Your task to perform on an android device: change keyboard looks Image 0: 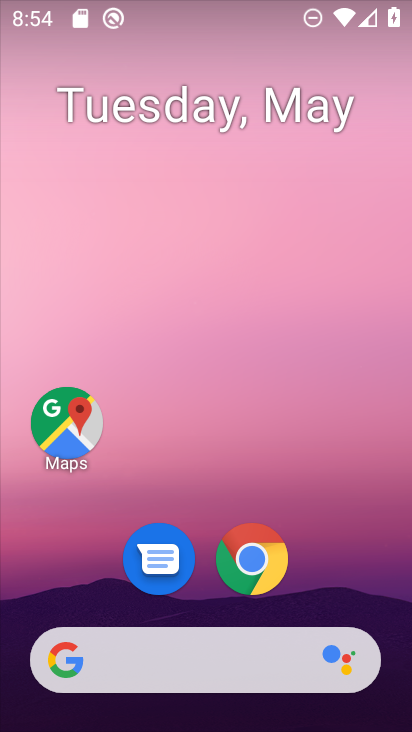
Step 0: drag from (224, 534) to (260, 194)
Your task to perform on an android device: change keyboard looks Image 1: 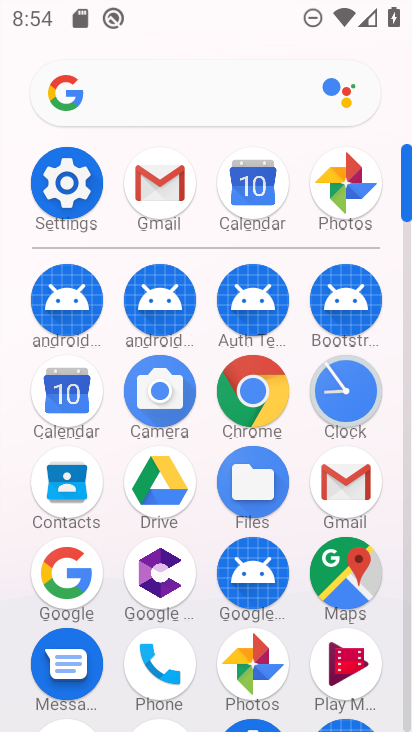
Step 1: click (60, 178)
Your task to perform on an android device: change keyboard looks Image 2: 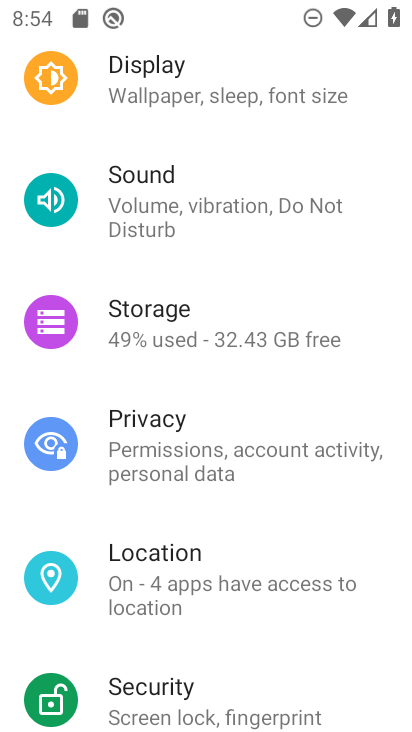
Step 2: drag from (224, 657) to (370, 136)
Your task to perform on an android device: change keyboard looks Image 3: 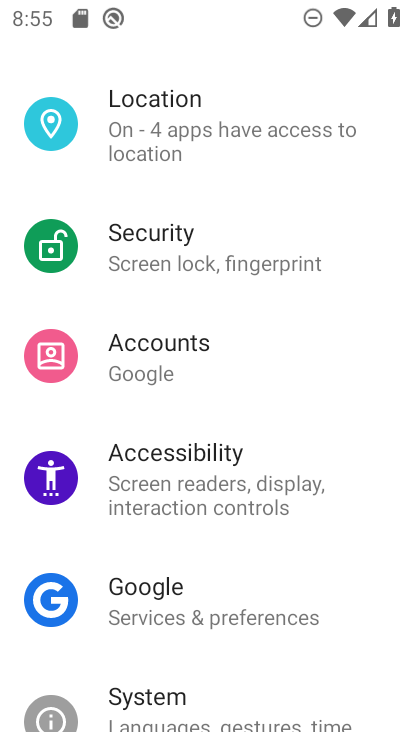
Step 3: click (182, 710)
Your task to perform on an android device: change keyboard looks Image 4: 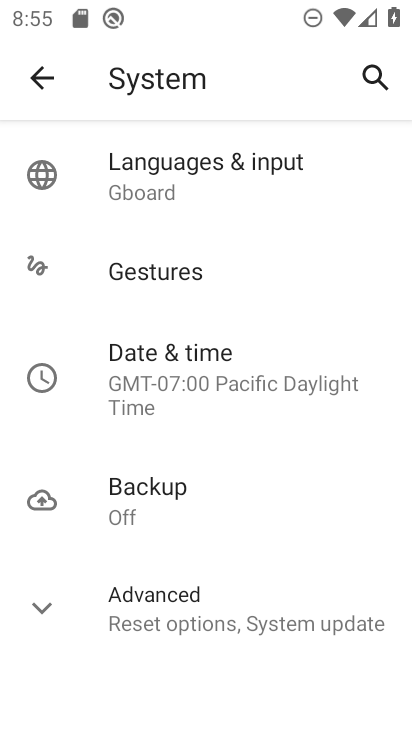
Step 4: click (188, 179)
Your task to perform on an android device: change keyboard looks Image 5: 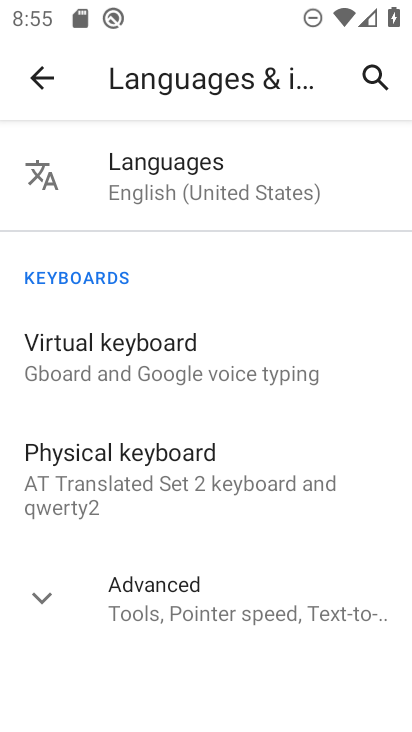
Step 5: click (183, 345)
Your task to perform on an android device: change keyboard looks Image 6: 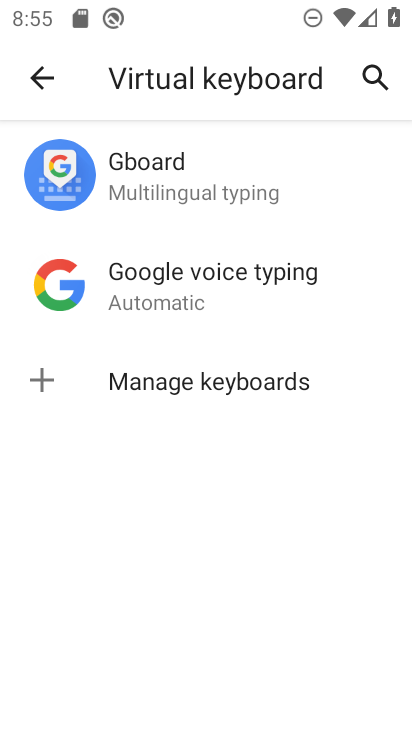
Step 6: click (179, 174)
Your task to perform on an android device: change keyboard looks Image 7: 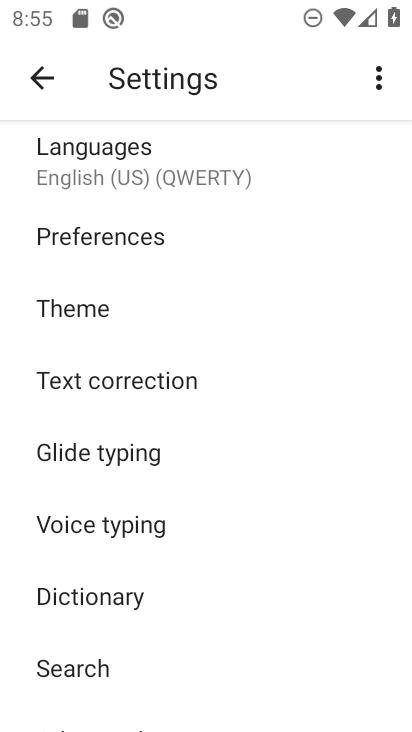
Step 7: click (96, 299)
Your task to perform on an android device: change keyboard looks Image 8: 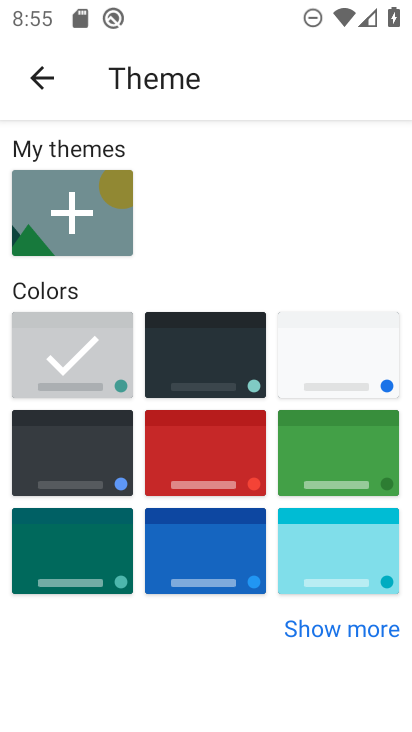
Step 8: click (235, 439)
Your task to perform on an android device: change keyboard looks Image 9: 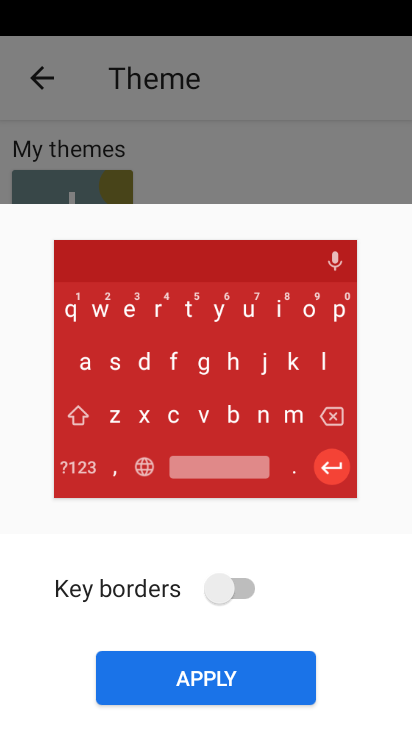
Step 9: click (215, 685)
Your task to perform on an android device: change keyboard looks Image 10: 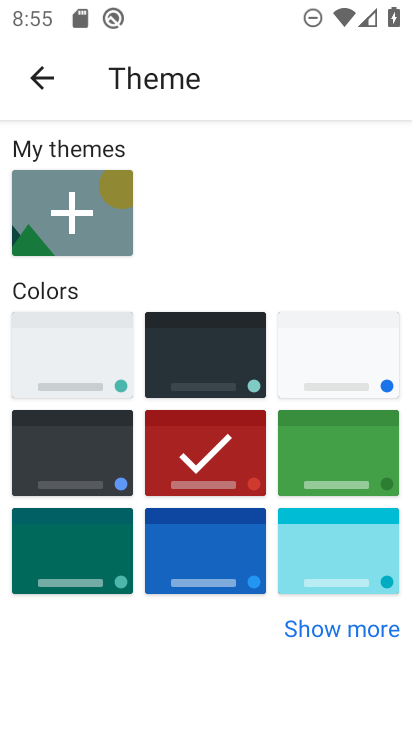
Step 10: task complete